Your task to perform on an android device: Go to calendar. Show me events next week Image 0: 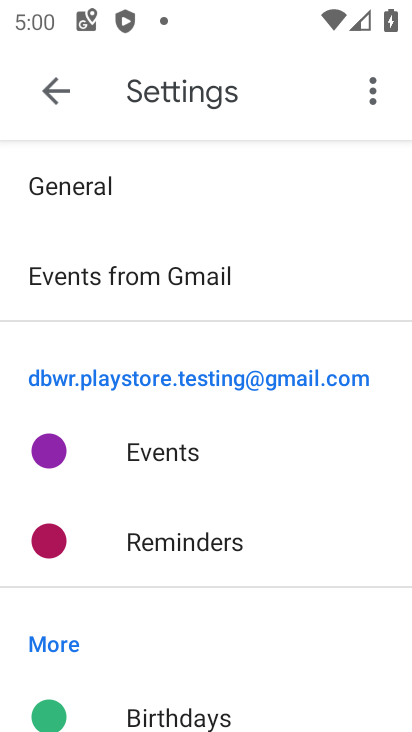
Step 0: press home button
Your task to perform on an android device: Go to calendar. Show me events next week Image 1: 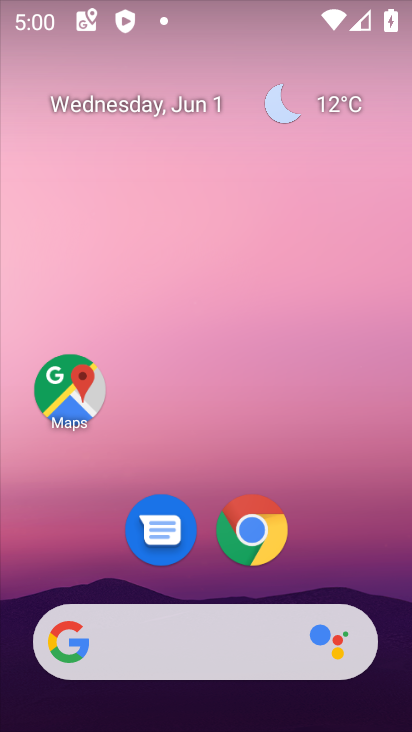
Step 1: drag from (206, 562) to (181, 156)
Your task to perform on an android device: Go to calendar. Show me events next week Image 2: 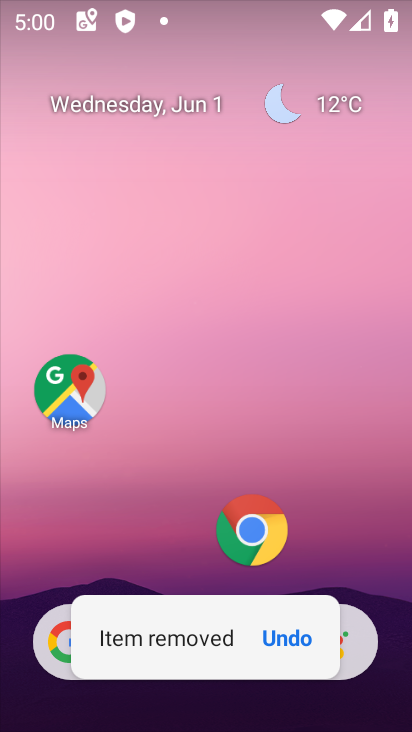
Step 2: click (290, 627)
Your task to perform on an android device: Go to calendar. Show me events next week Image 3: 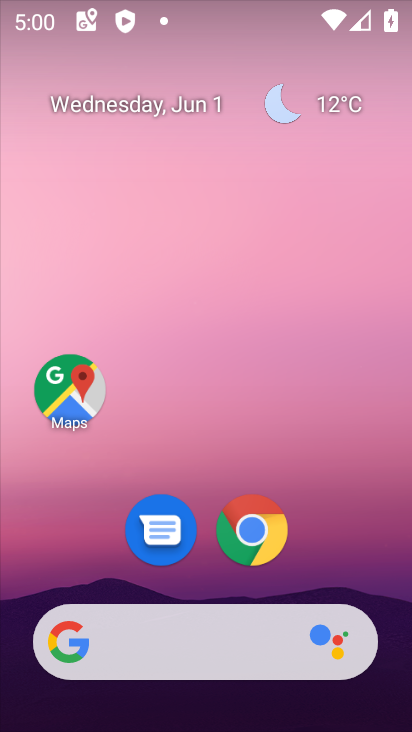
Step 3: click (290, 631)
Your task to perform on an android device: Go to calendar. Show me events next week Image 4: 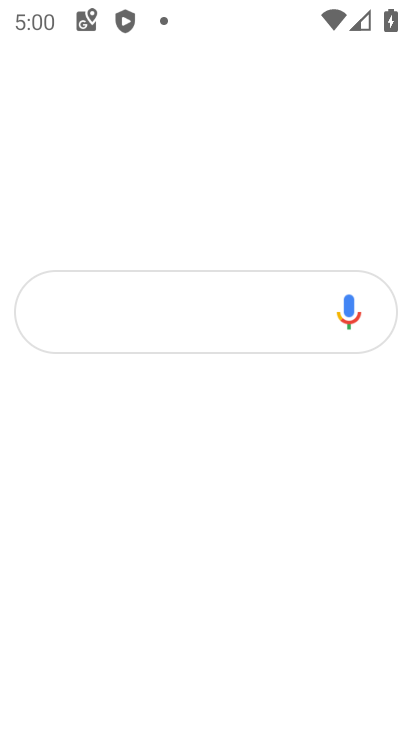
Step 4: drag from (213, 576) to (203, 132)
Your task to perform on an android device: Go to calendar. Show me events next week Image 5: 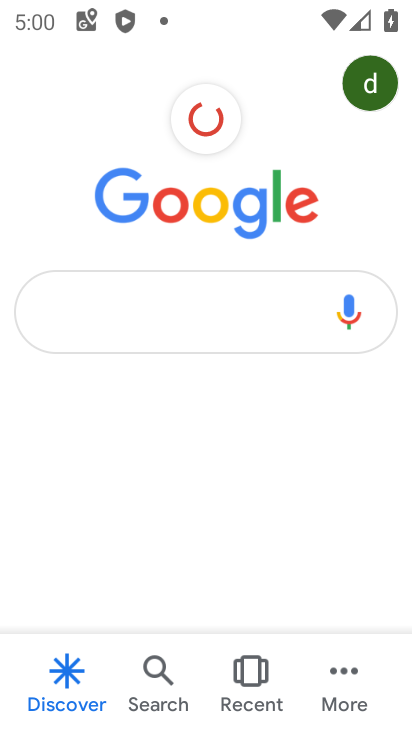
Step 5: press home button
Your task to perform on an android device: Go to calendar. Show me events next week Image 6: 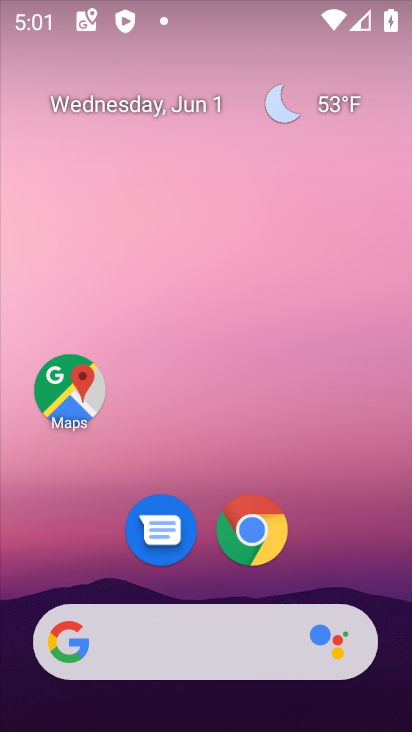
Step 6: drag from (203, 595) to (204, 278)
Your task to perform on an android device: Go to calendar. Show me events next week Image 7: 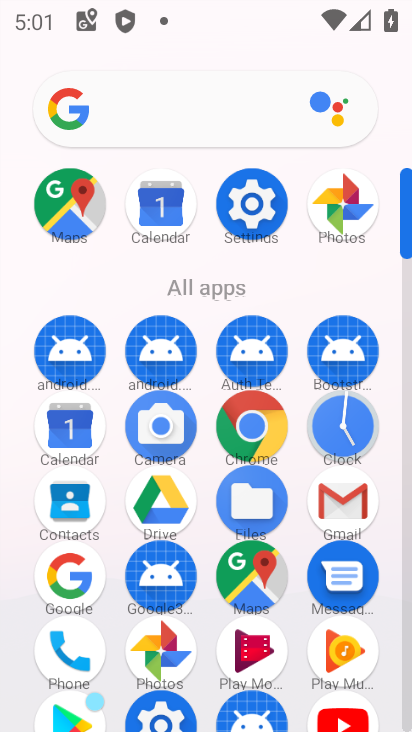
Step 7: click (164, 230)
Your task to perform on an android device: Go to calendar. Show me events next week Image 8: 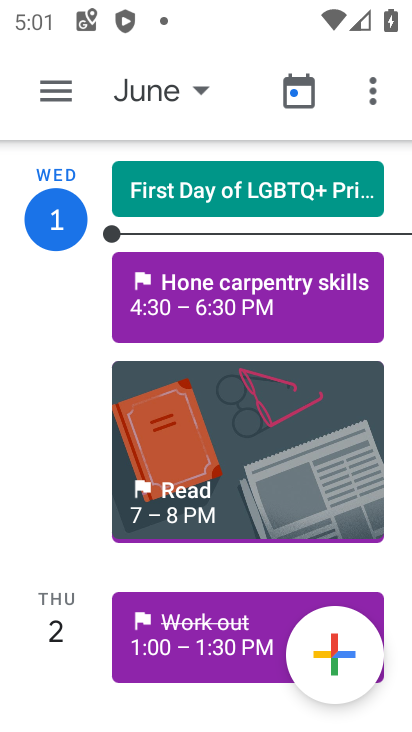
Step 8: click (53, 92)
Your task to perform on an android device: Go to calendar. Show me events next week Image 9: 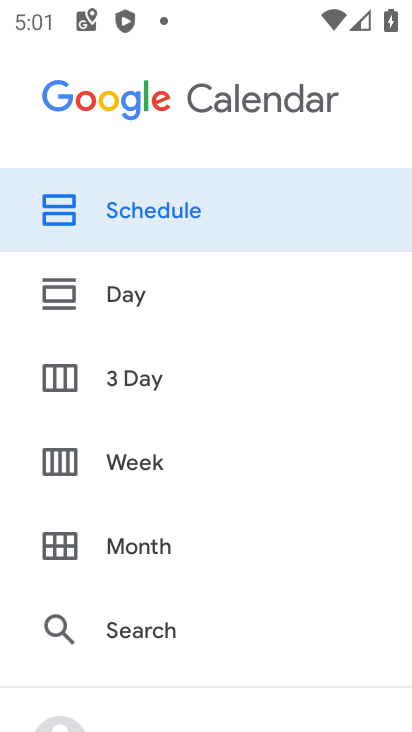
Step 9: click (169, 457)
Your task to perform on an android device: Go to calendar. Show me events next week Image 10: 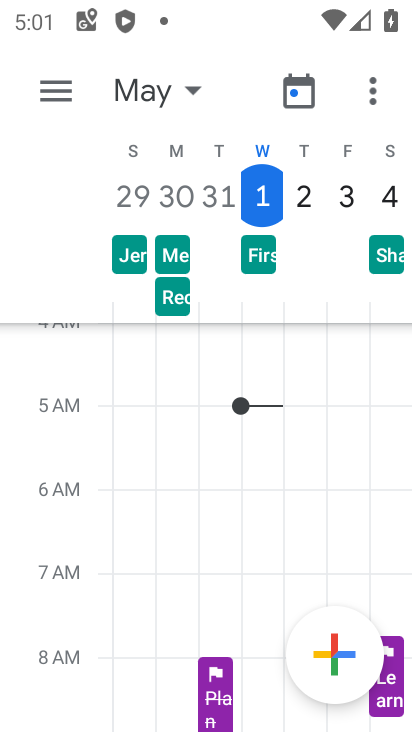
Step 10: task complete